Your task to perform on an android device: Go to display settings Image 0: 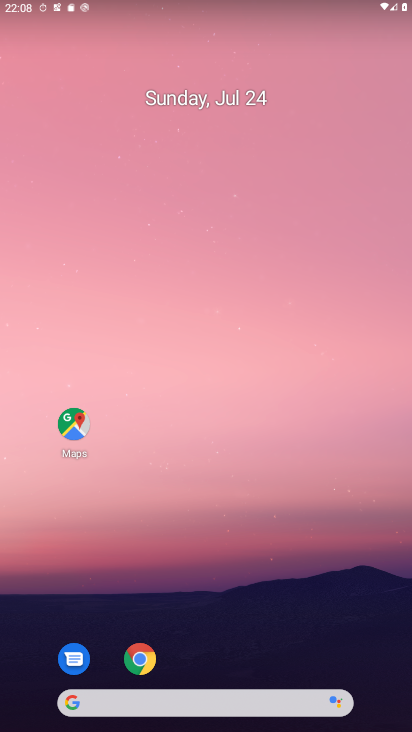
Step 0: drag from (207, 699) to (212, 76)
Your task to perform on an android device: Go to display settings Image 1: 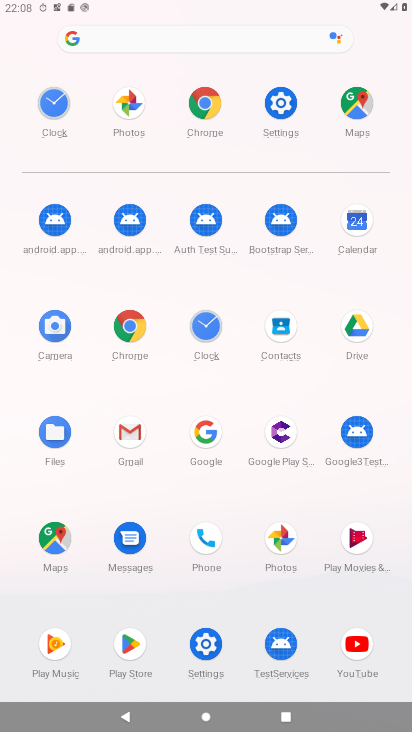
Step 1: click (282, 106)
Your task to perform on an android device: Go to display settings Image 2: 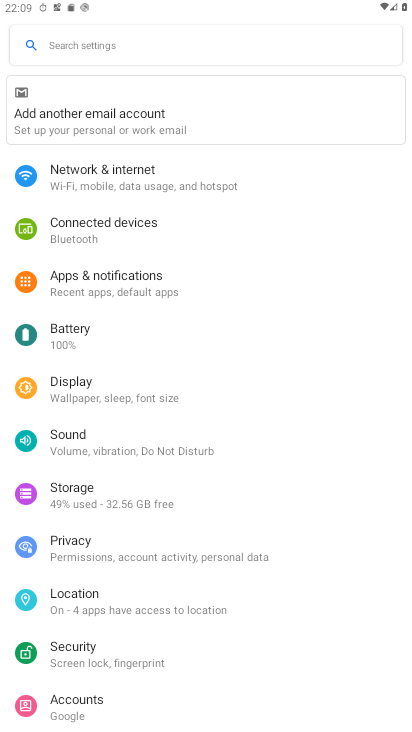
Step 2: click (76, 387)
Your task to perform on an android device: Go to display settings Image 3: 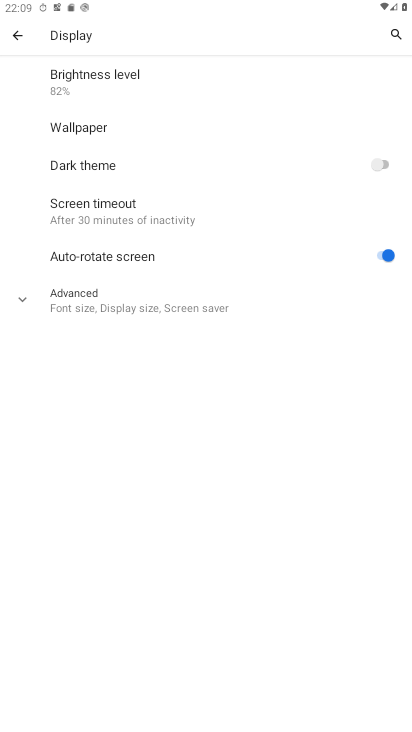
Step 3: task complete